Your task to perform on an android device: What's the weather going to be this weekend? Image 0: 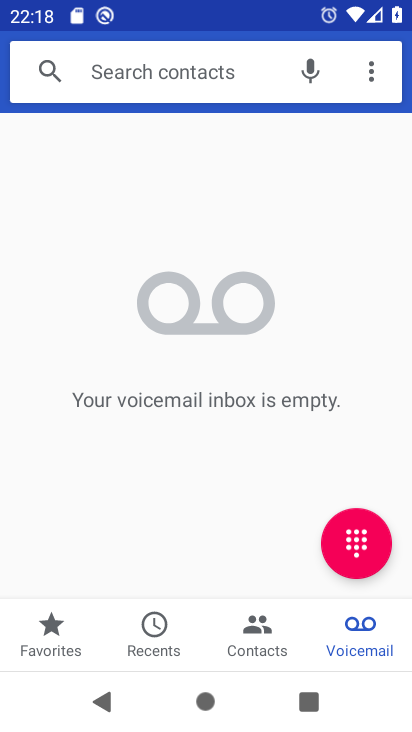
Step 0: press home button
Your task to perform on an android device: What's the weather going to be this weekend? Image 1: 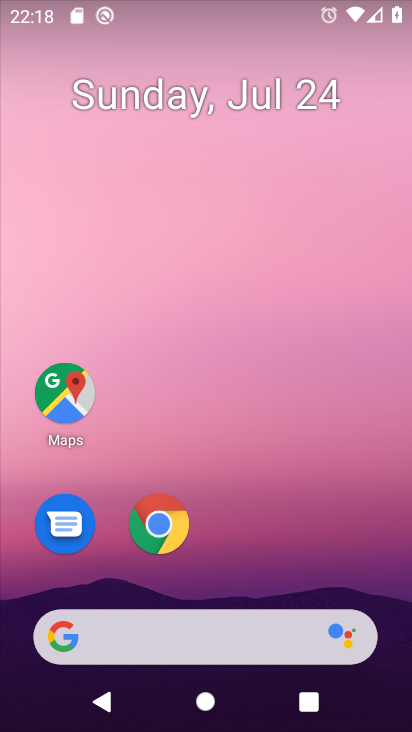
Step 1: drag from (267, 557) to (285, 343)
Your task to perform on an android device: What's the weather going to be this weekend? Image 2: 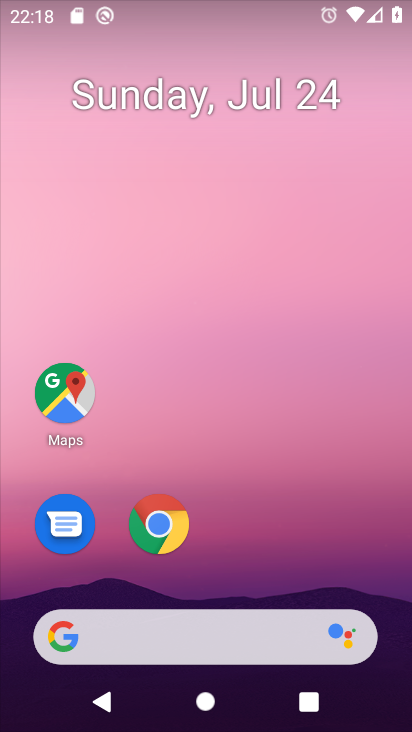
Step 2: click (153, 649)
Your task to perform on an android device: What's the weather going to be this weekend? Image 3: 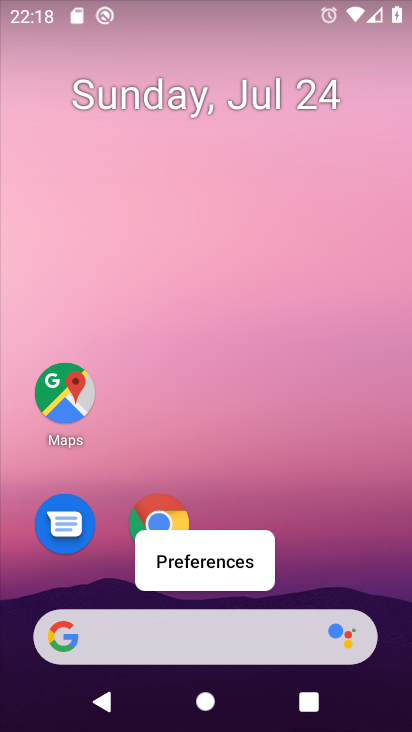
Step 3: click (153, 648)
Your task to perform on an android device: What's the weather going to be this weekend? Image 4: 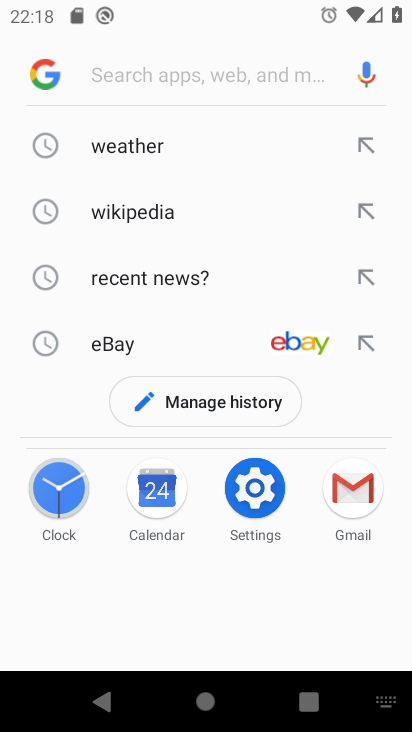
Step 4: click (145, 149)
Your task to perform on an android device: What's the weather going to be this weekend? Image 5: 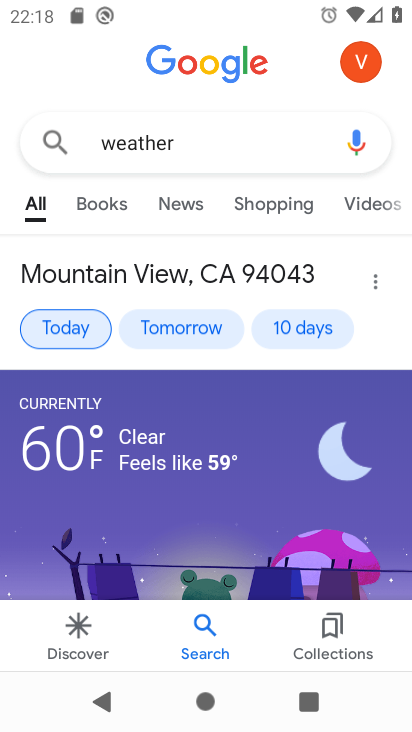
Step 5: click (298, 322)
Your task to perform on an android device: What's the weather going to be this weekend? Image 6: 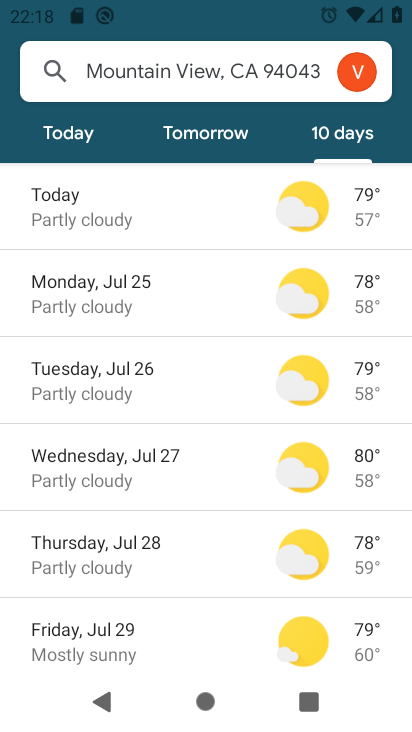
Step 6: drag from (214, 528) to (217, 162)
Your task to perform on an android device: What's the weather going to be this weekend? Image 7: 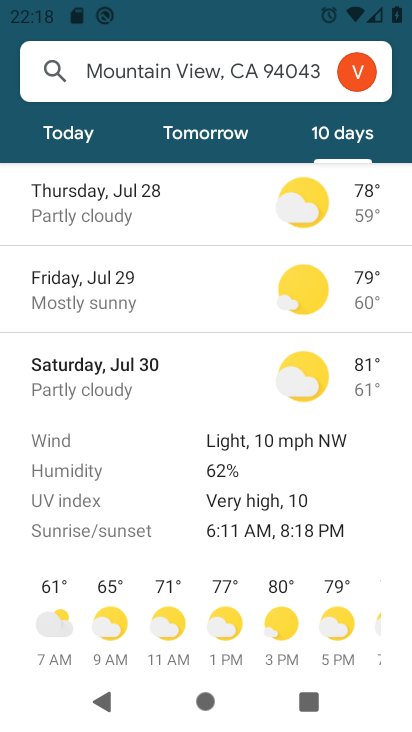
Step 7: click (81, 370)
Your task to perform on an android device: What's the weather going to be this weekend? Image 8: 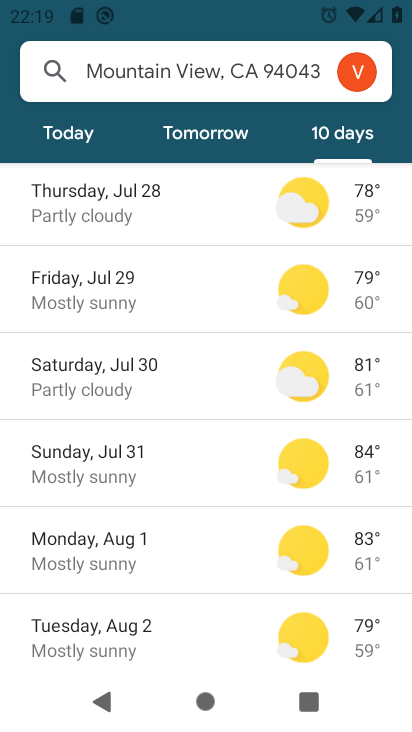
Step 8: click (81, 370)
Your task to perform on an android device: What's the weather going to be this weekend? Image 9: 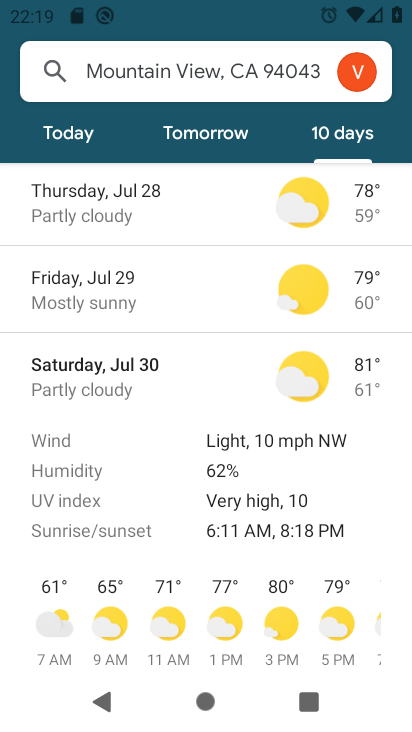
Step 9: task complete